Your task to perform on an android device: Open my contact list Image 0: 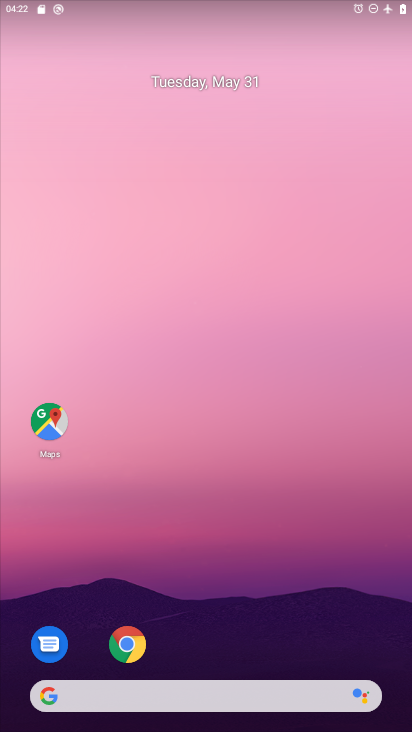
Step 0: drag from (250, 515) to (237, 148)
Your task to perform on an android device: Open my contact list Image 1: 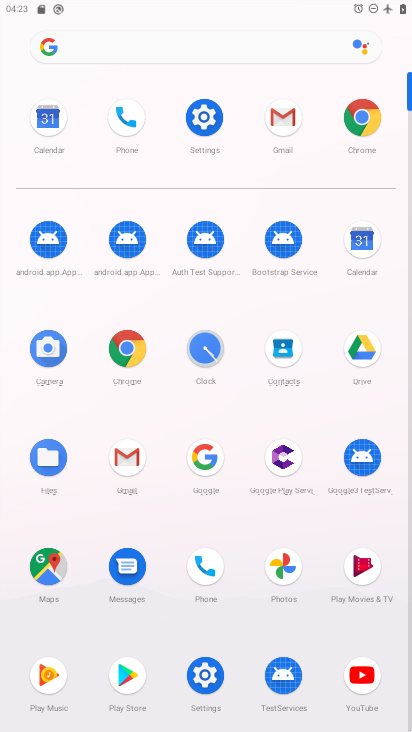
Step 1: click (283, 352)
Your task to perform on an android device: Open my contact list Image 2: 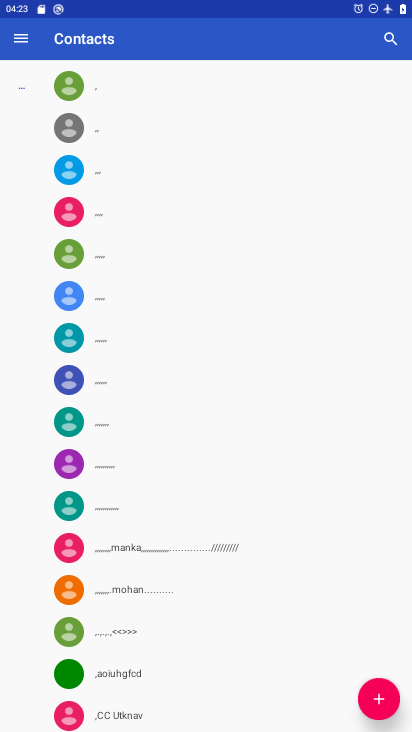
Step 2: task complete